Your task to perform on an android device: change the clock display to analog Image 0: 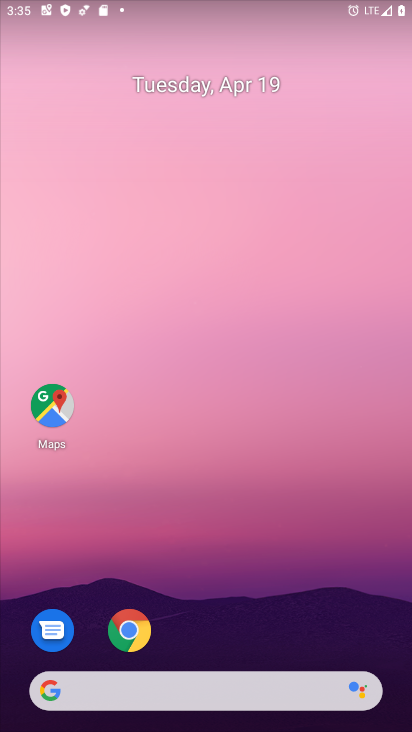
Step 0: drag from (219, 728) to (234, 15)
Your task to perform on an android device: change the clock display to analog Image 1: 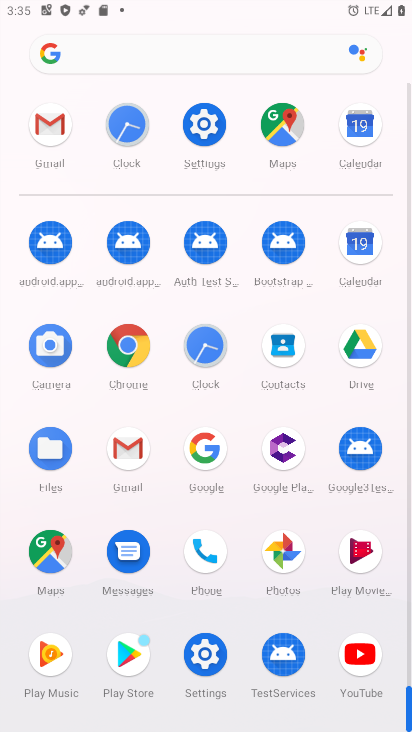
Step 1: click (204, 342)
Your task to perform on an android device: change the clock display to analog Image 2: 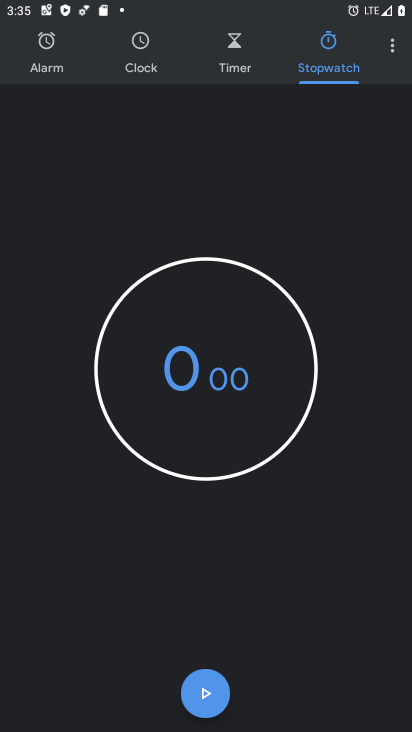
Step 2: click (394, 49)
Your task to perform on an android device: change the clock display to analog Image 3: 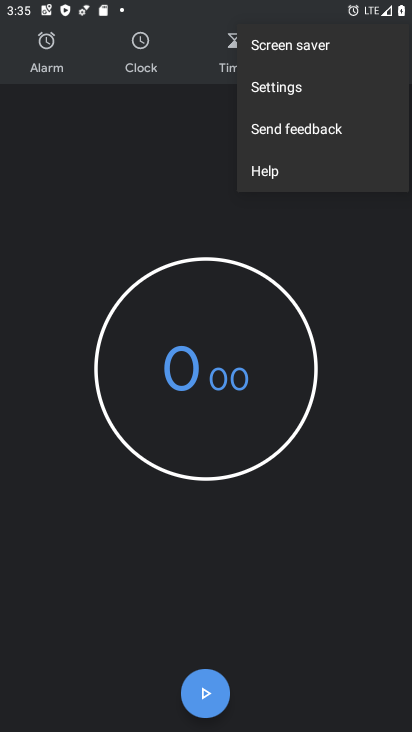
Step 3: click (266, 92)
Your task to perform on an android device: change the clock display to analog Image 4: 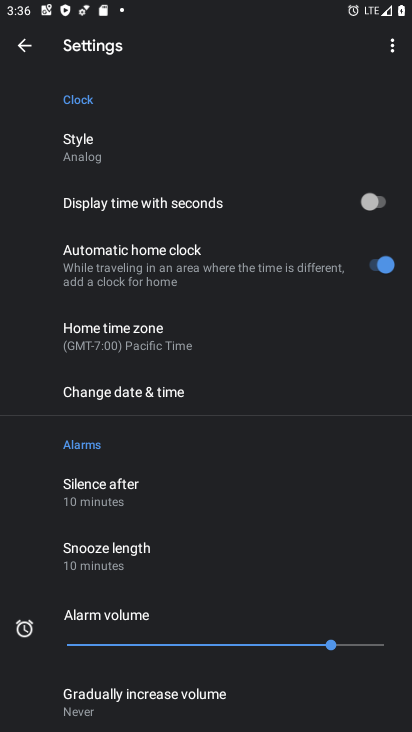
Step 4: task complete